Your task to perform on an android device: Clear the cart on bestbuy. Search for "bose soundsport free" on bestbuy, select the first entry, add it to the cart, then select checkout. Image 0: 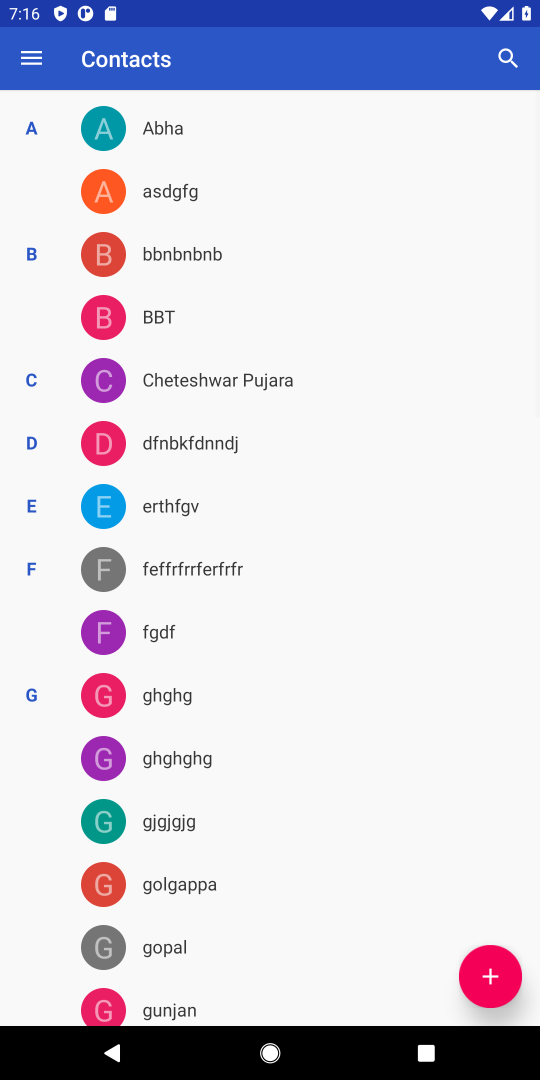
Step 0: press home button
Your task to perform on an android device: Clear the cart on bestbuy. Search for "bose soundsport free" on bestbuy, select the first entry, add it to the cart, then select checkout. Image 1: 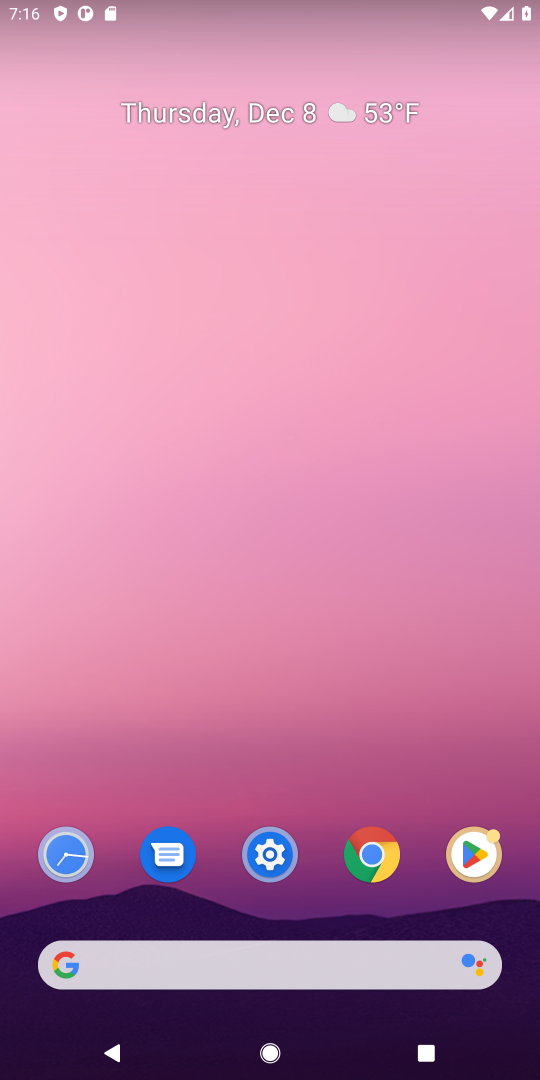
Step 1: click (94, 960)
Your task to perform on an android device: Clear the cart on bestbuy. Search for "bose soundsport free" on bestbuy, select the first entry, add it to the cart, then select checkout. Image 2: 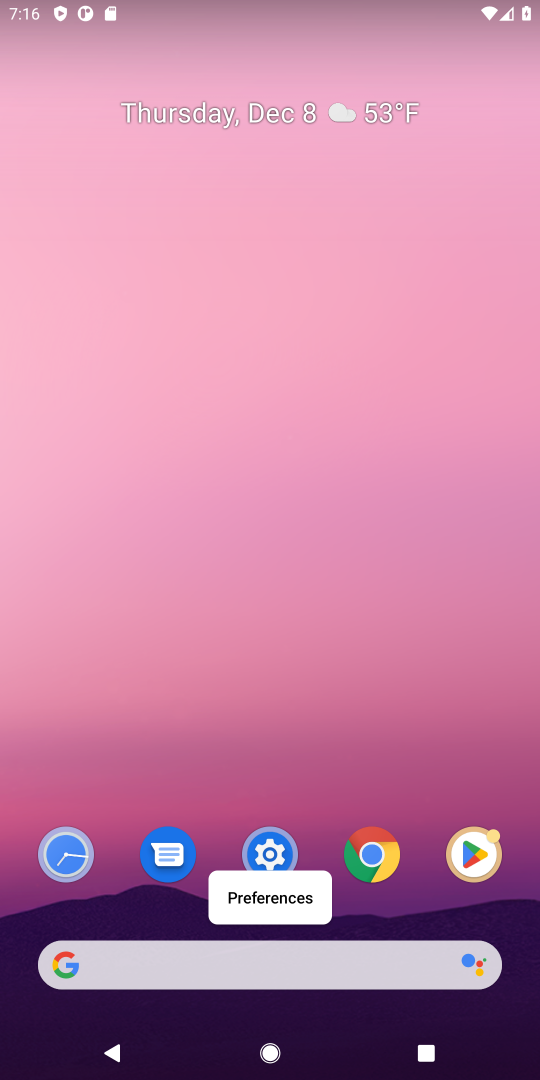
Step 2: click (90, 964)
Your task to perform on an android device: Clear the cart on bestbuy. Search for "bose soundsport free" on bestbuy, select the first entry, add it to the cart, then select checkout. Image 3: 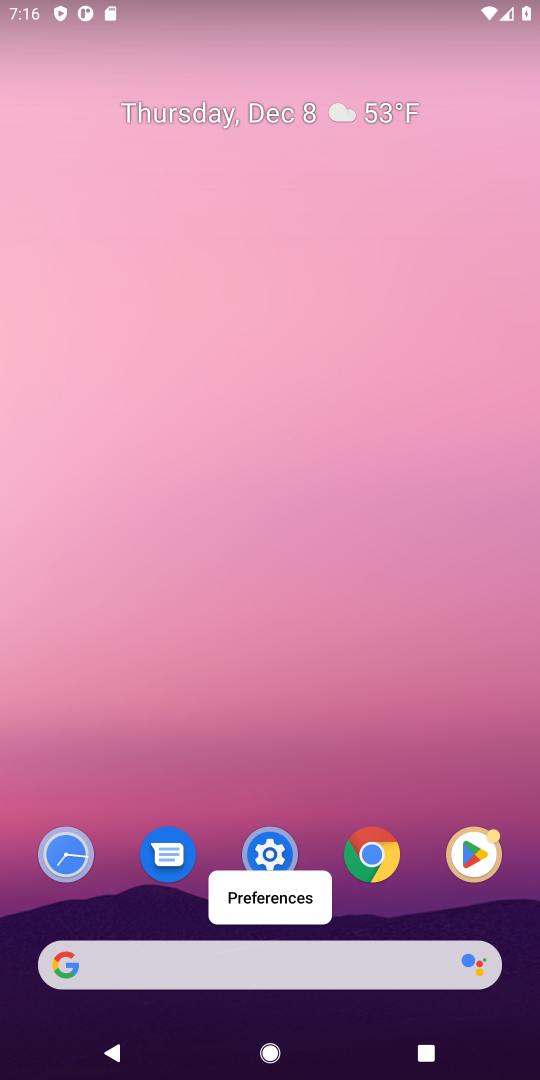
Step 3: click (97, 955)
Your task to perform on an android device: Clear the cart on bestbuy. Search for "bose soundsport free" on bestbuy, select the first entry, add it to the cart, then select checkout. Image 4: 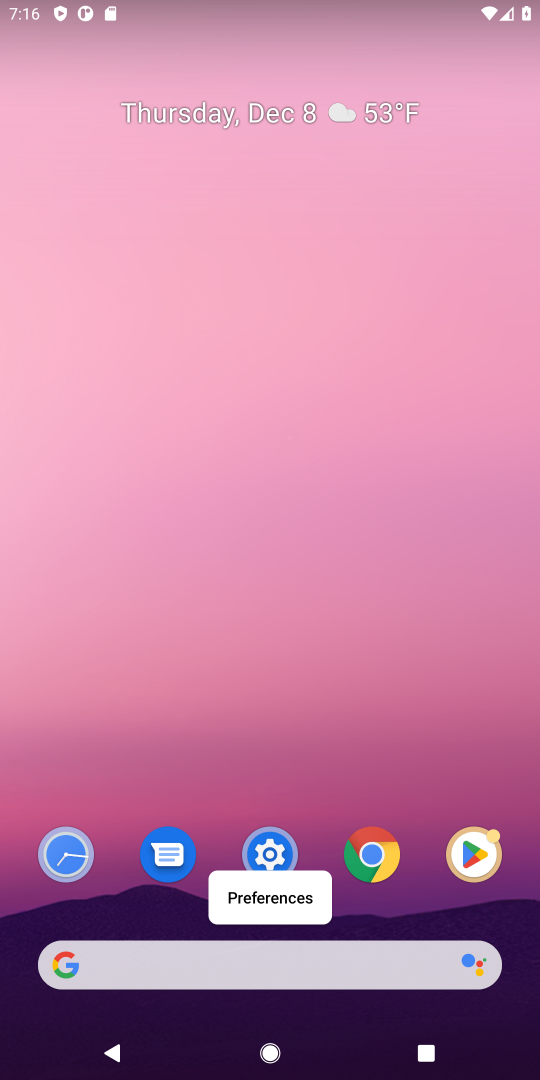
Step 4: click (101, 960)
Your task to perform on an android device: Clear the cart on bestbuy. Search for "bose soundsport free" on bestbuy, select the first entry, add it to the cart, then select checkout. Image 5: 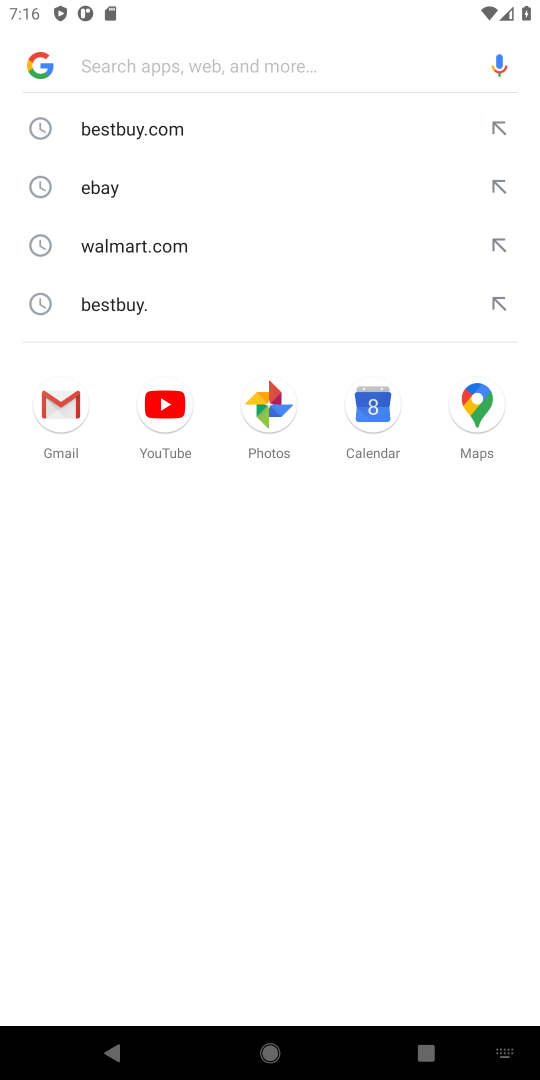
Step 5: type "bestbuy"
Your task to perform on an android device: Clear the cart on bestbuy. Search for "bose soundsport free" on bestbuy, select the first entry, add it to the cart, then select checkout. Image 6: 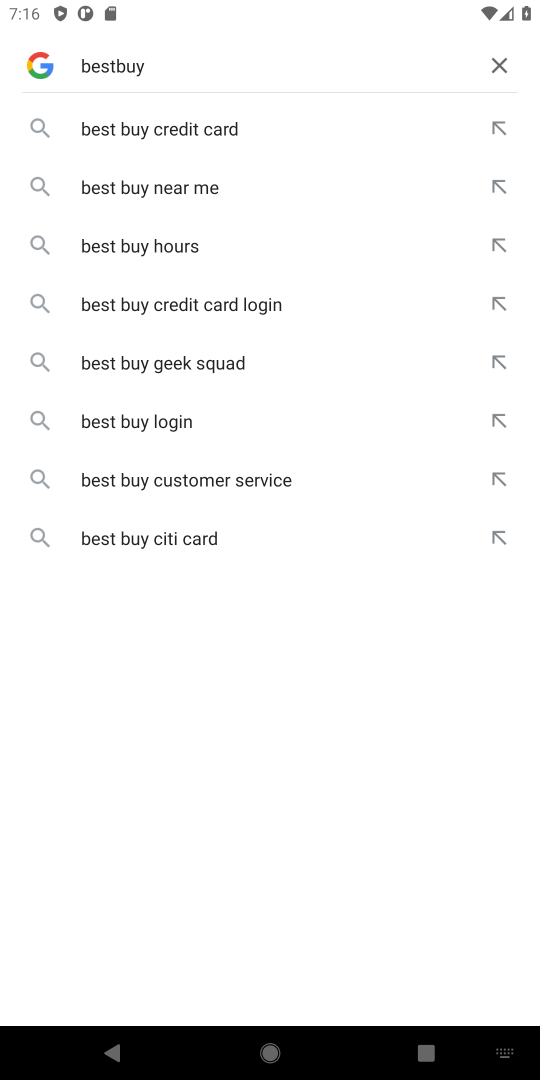
Step 6: press enter
Your task to perform on an android device: Clear the cart on bestbuy. Search for "bose soundsport free" on bestbuy, select the first entry, add it to the cart, then select checkout. Image 7: 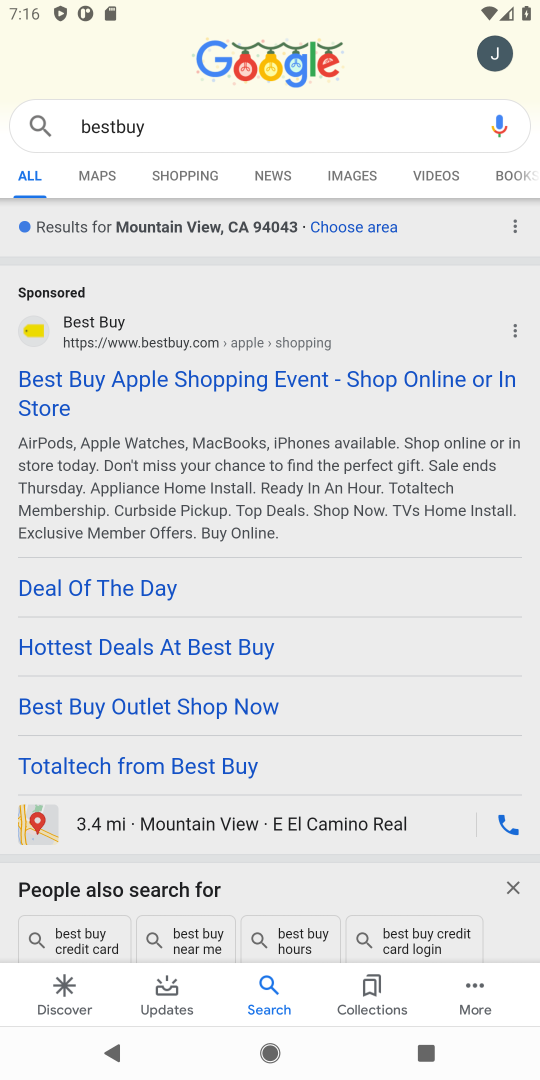
Step 7: click (203, 381)
Your task to perform on an android device: Clear the cart on bestbuy. Search for "bose soundsport free" on bestbuy, select the first entry, add it to the cart, then select checkout. Image 8: 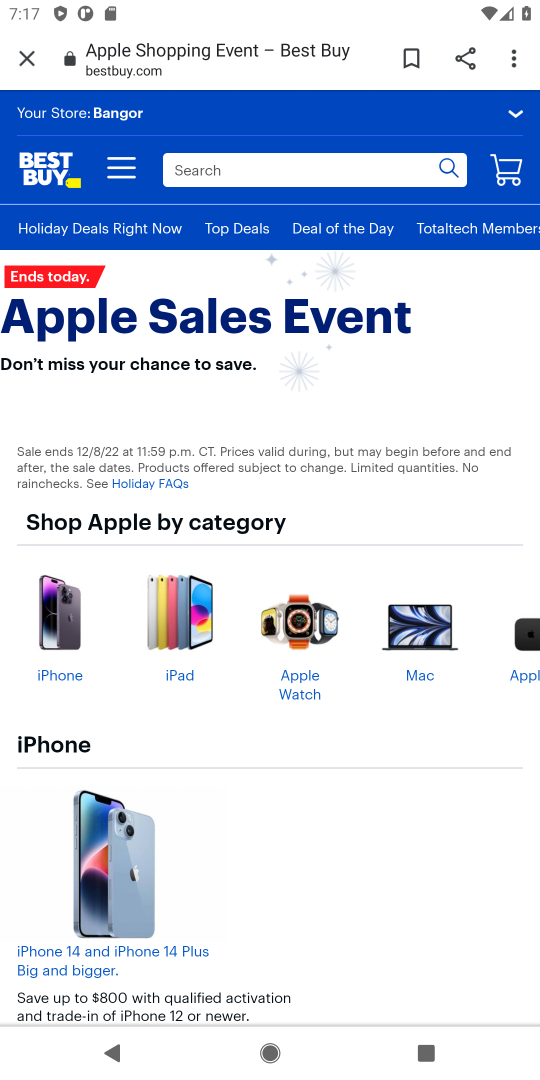
Step 8: drag from (374, 861) to (365, 412)
Your task to perform on an android device: Clear the cart on bestbuy. Search for "bose soundsport free" on bestbuy, select the first entry, add it to the cart, then select checkout. Image 9: 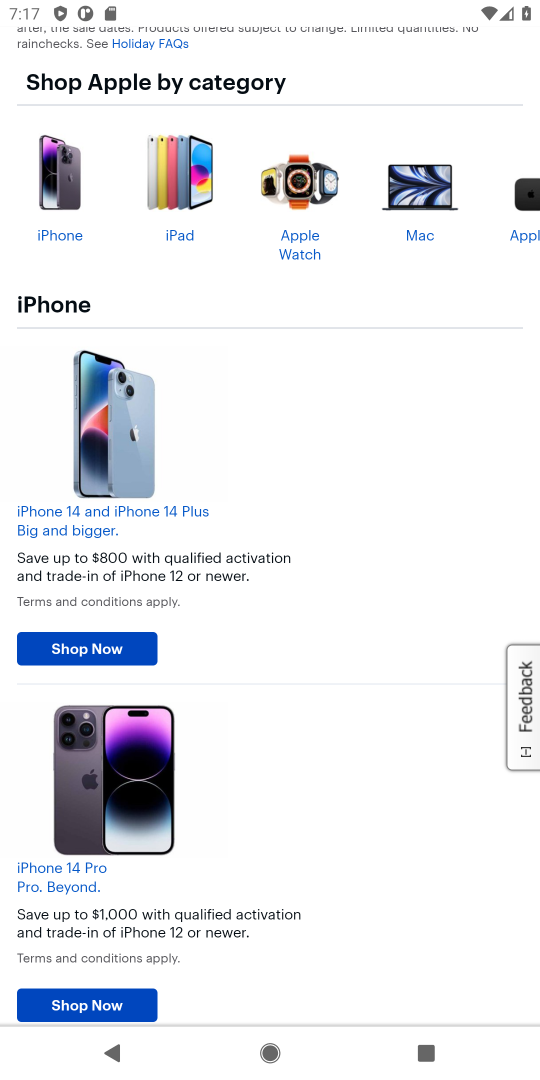
Step 9: drag from (354, 289) to (378, 883)
Your task to perform on an android device: Clear the cart on bestbuy. Search for "bose soundsport free" on bestbuy, select the first entry, add it to the cart, then select checkout. Image 10: 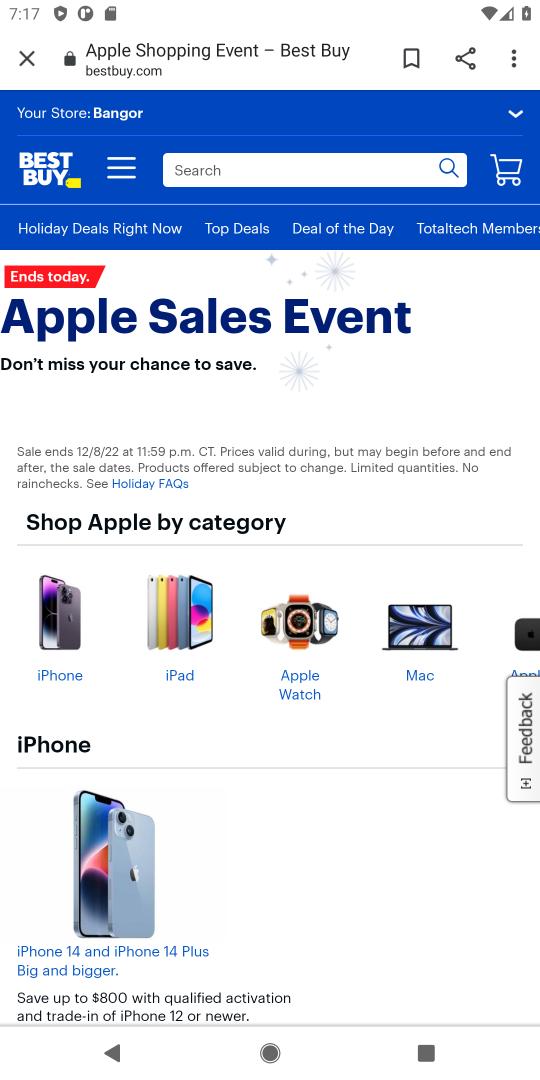
Step 10: click (261, 172)
Your task to perform on an android device: Clear the cart on bestbuy. Search for "bose soundsport free" on bestbuy, select the first entry, add it to the cart, then select checkout. Image 11: 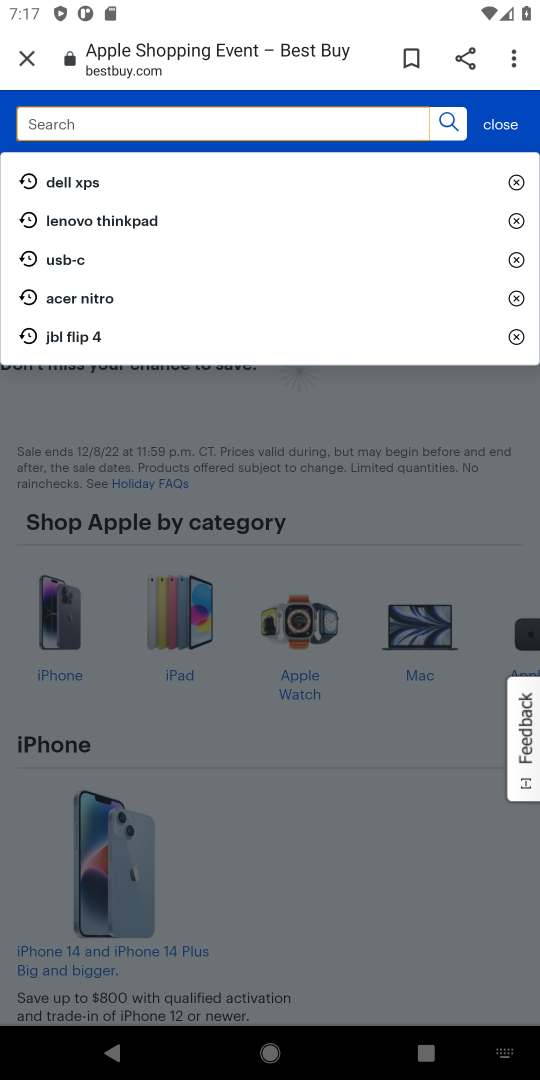
Step 11: type "bose soundsport free"
Your task to perform on an android device: Clear the cart on bestbuy. Search for "bose soundsport free" on bestbuy, select the first entry, add it to the cart, then select checkout. Image 12: 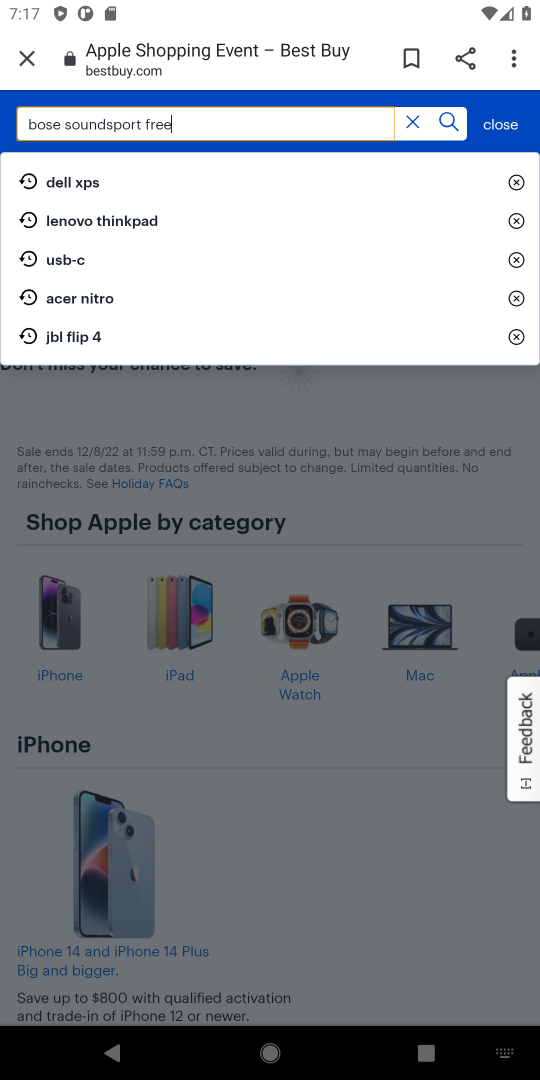
Step 12: press enter
Your task to perform on an android device: Clear the cart on bestbuy. Search for "bose soundsport free" on bestbuy, select the first entry, add it to the cart, then select checkout. Image 13: 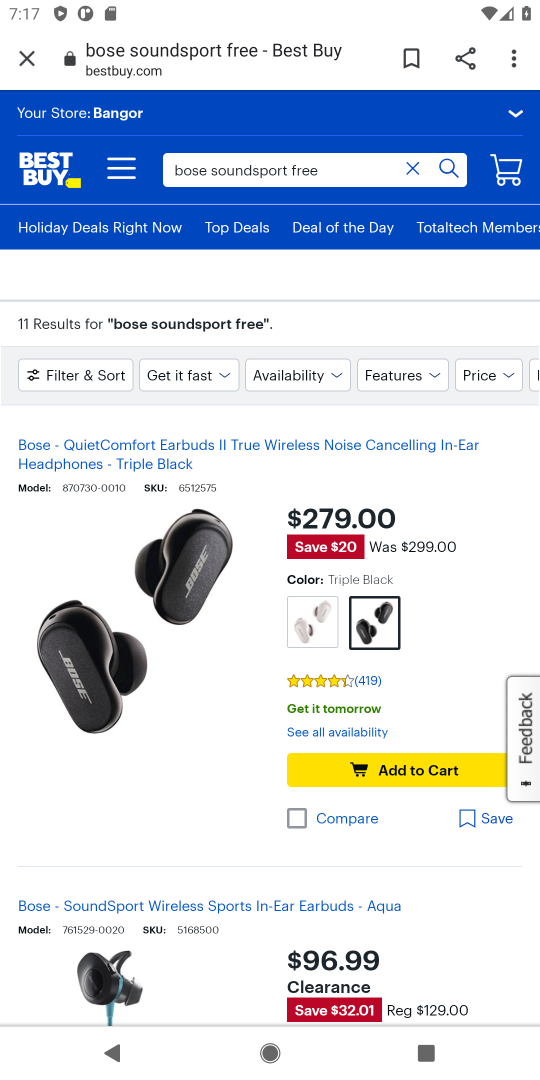
Step 13: drag from (412, 888) to (455, 554)
Your task to perform on an android device: Clear the cart on bestbuy. Search for "bose soundsport free" on bestbuy, select the first entry, add it to the cart, then select checkout. Image 14: 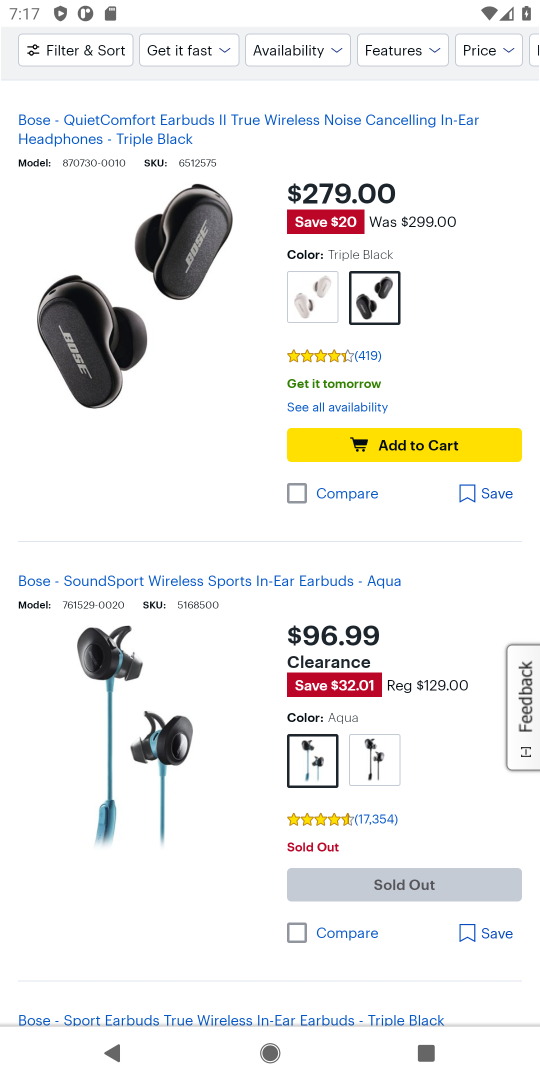
Step 14: drag from (381, 872) to (430, 436)
Your task to perform on an android device: Clear the cart on bestbuy. Search for "bose soundsport free" on bestbuy, select the first entry, add it to the cart, then select checkout. Image 15: 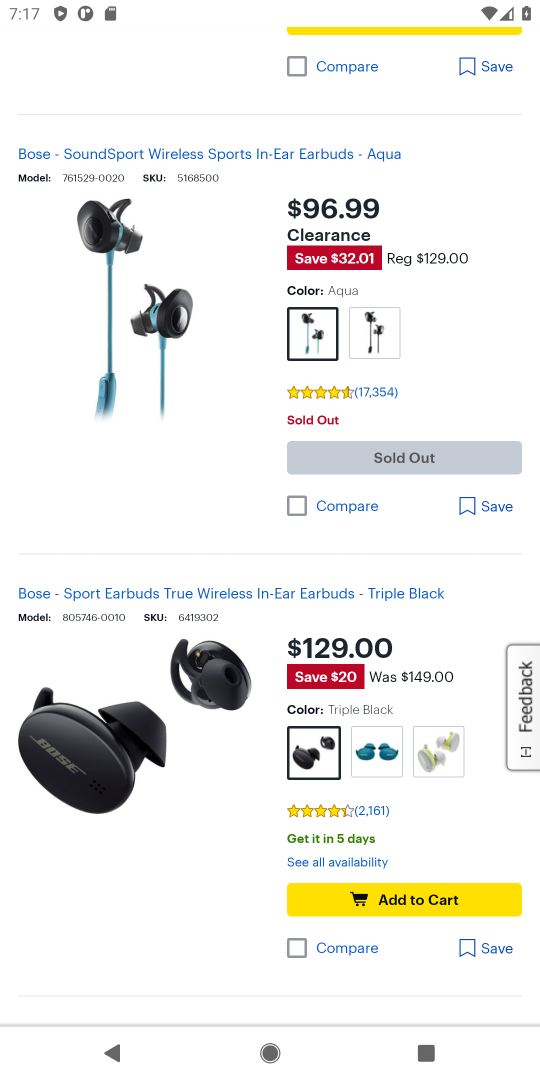
Step 15: drag from (343, 862) to (379, 326)
Your task to perform on an android device: Clear the cart on bestbuy. Search for "bose soundsport free" on bestbuy, select the first entry, add it to the cart, then select checkout. Image 16: 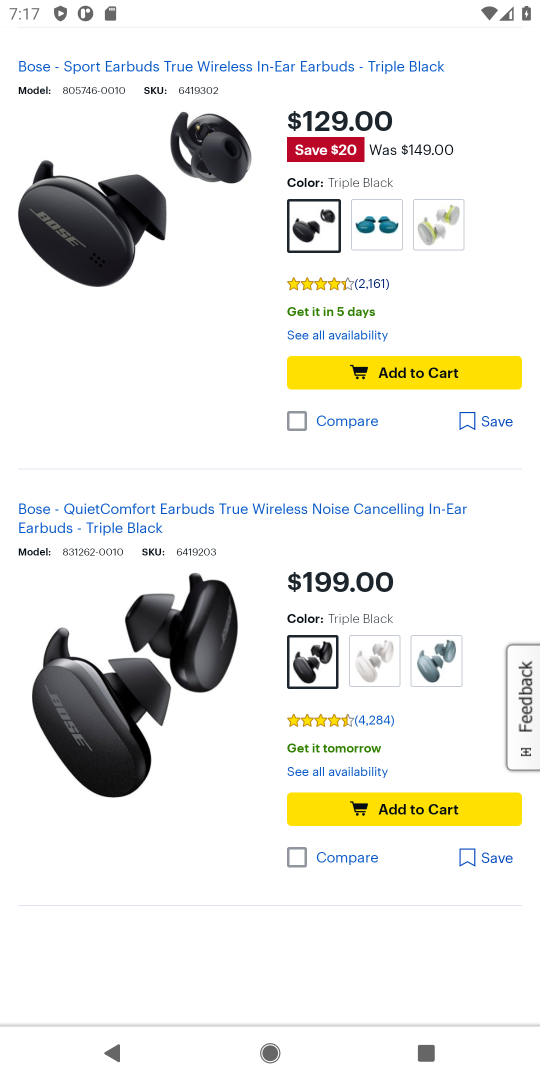
Step 16: drag from (348, 890) to (404, 274)
Your task to perform on an android device: Clear the cart on bestbuy. Search for "bose soundsport free" on bestbuy, select the first entry, add it to the cart, then select checkout. Image 17: 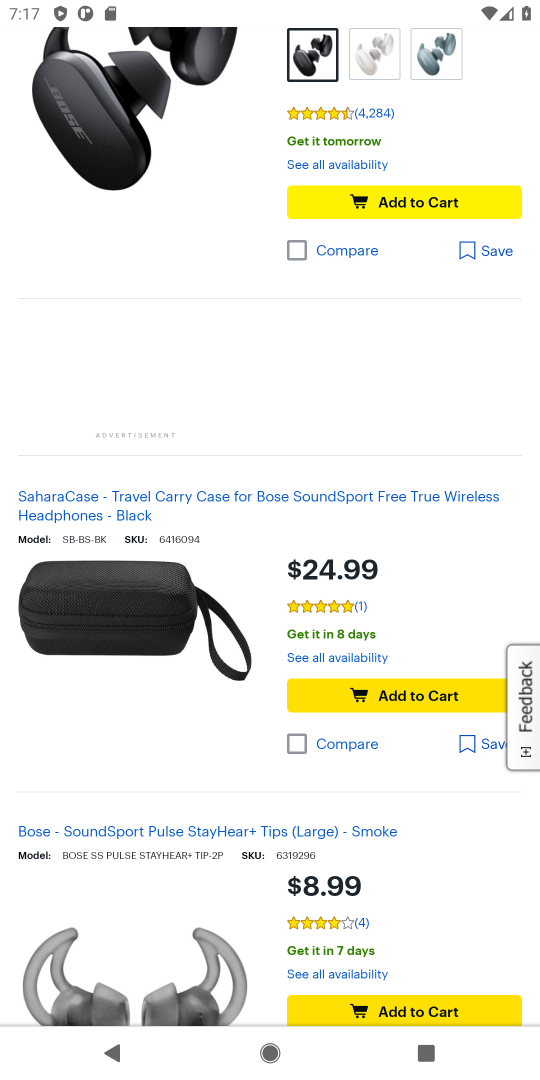
Step 17: drag from (351, 862) to (368, 283)
Your task to perform on an android device: Clear the cart on bestbuy. Search for "bose soundsport free" on bestbuy, select the first entry, add it to the cart, then select checkout. Image 18: 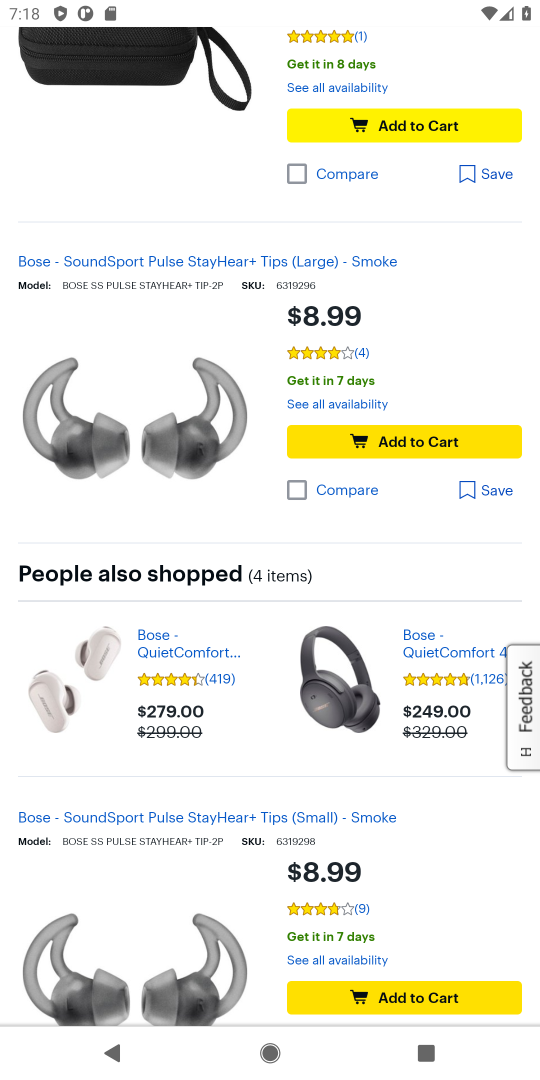
Step 18: click (398, 437)
Your task to perform on an android device: Clear the cart on bestbuy. Search for "bose soundsport free" on bestbuy, select the first entry, add it to the cart, then select checkout. Image 19: 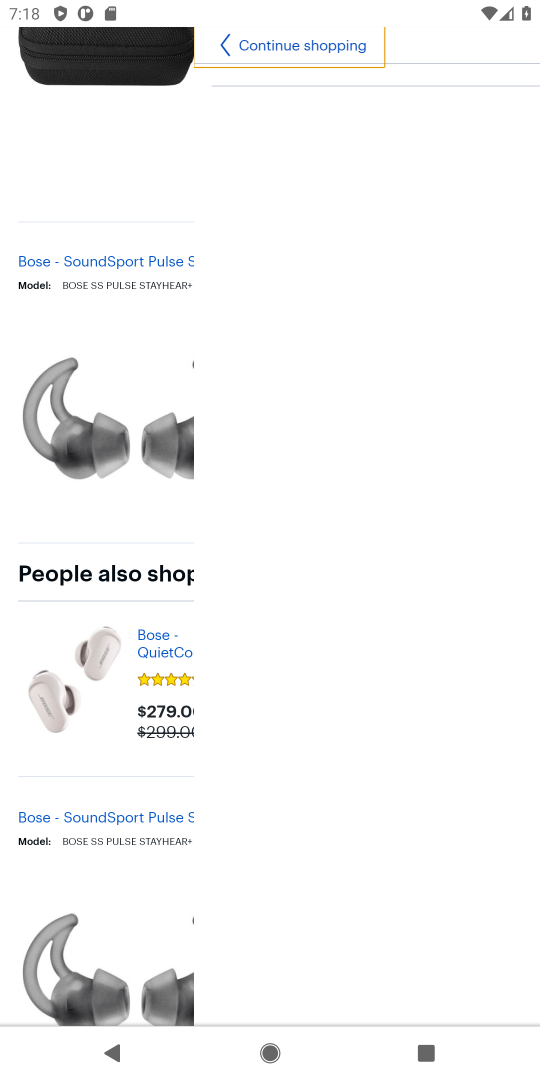
Step 19: task complete